Your task to perform on an android device: Open location settings Image 0: 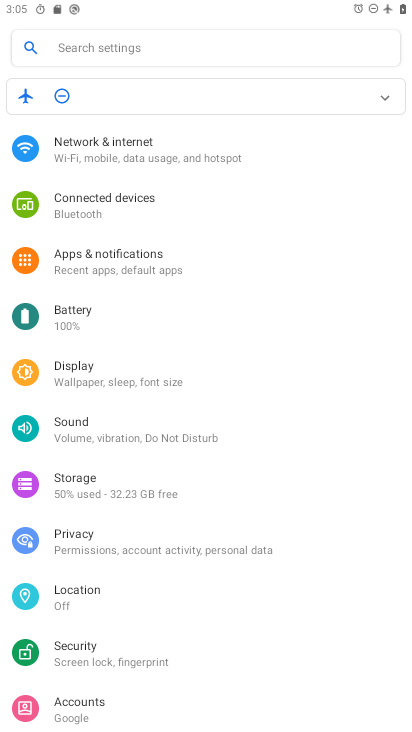
Step 0: click (93, 599)
Your task to perform on an android device: Open location settings Image 1: 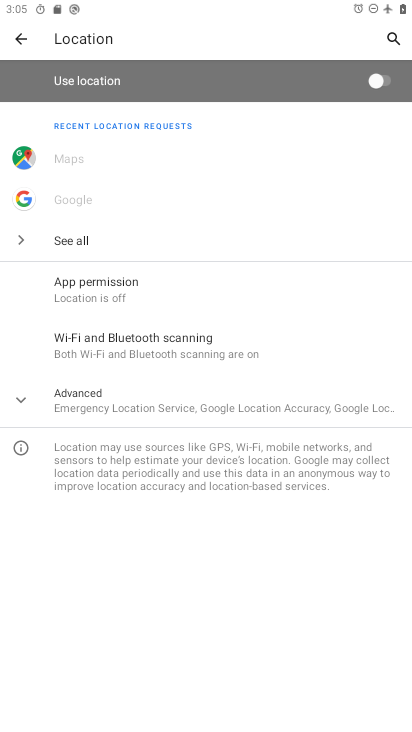
Step 1: task complete